Your task to perform on an android device: open sync settings in chrome Image 0: 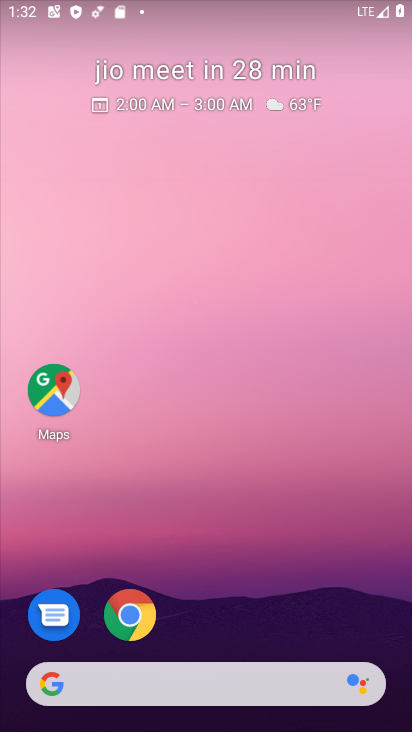
Step 0: click (123, 618)
Your task to perform on an android device: open sync settings in chrome Image 1: 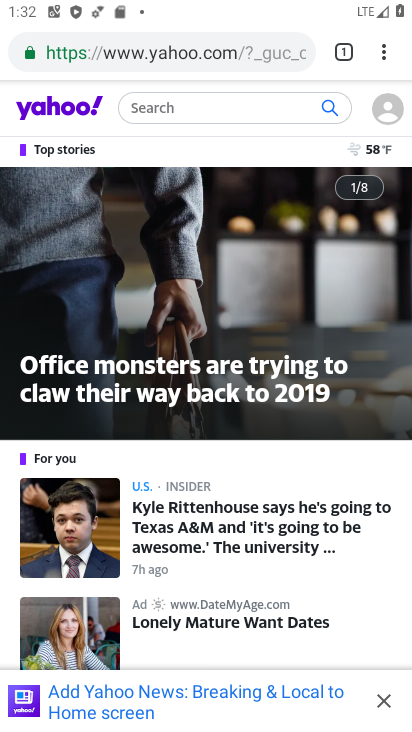
Step 1: drag from (381, 49) to (244, 663)
Your task to perform on an android device: open sync settings in chrome Image 2: 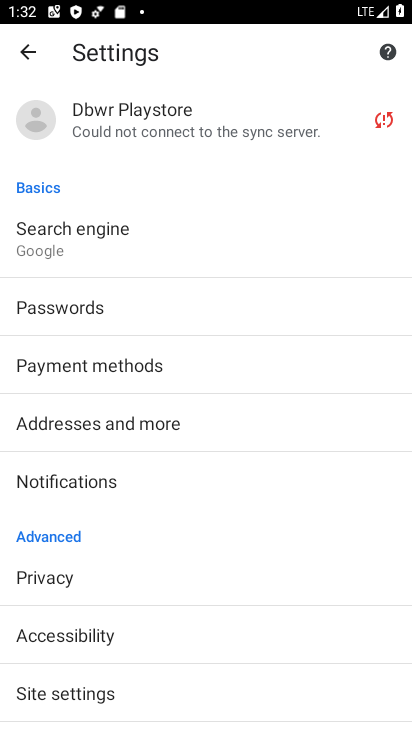
Step 2: click (274, 136)
Your task to perform on an android device: open sync settings in chrome Image 3: 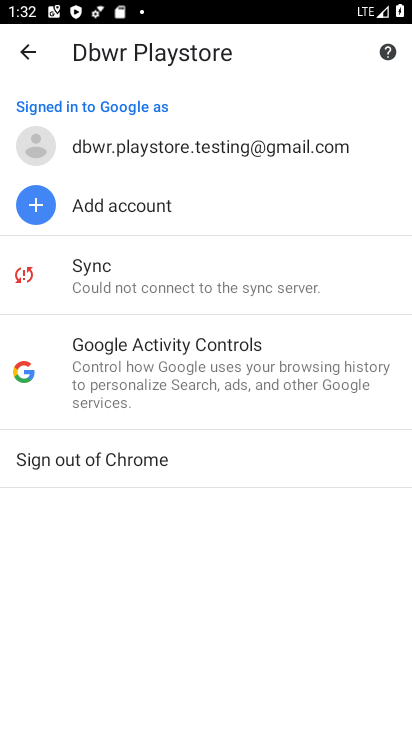
Step 3: click (218, 309)
Your task to perform on an android device: open sync settings in chrome Image 4: 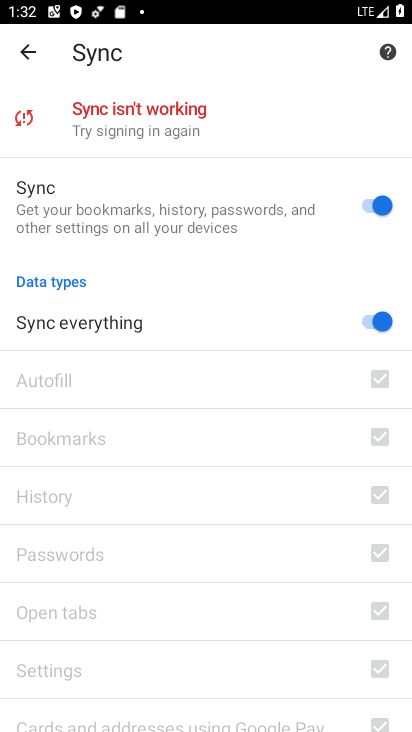
Step 4: task complete